Your task to perform on an android device: Search for 24"x36" picture frame on Home Depot. Image 0: 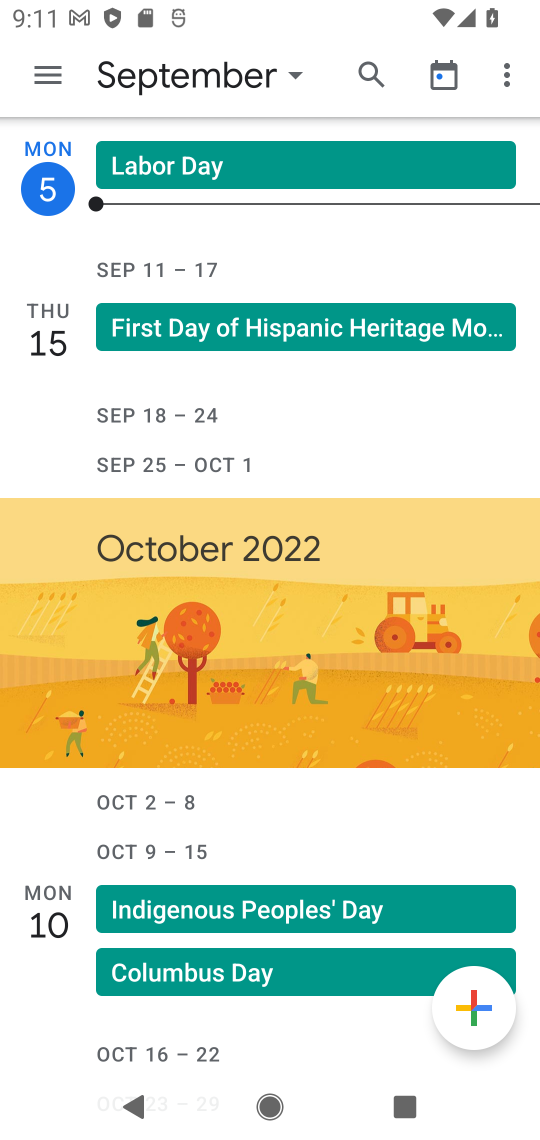
Step 0: click (192, 1022)
Your task to perform on an android device: Search for 24"x36" picture frame on Home Depot. Image 1: 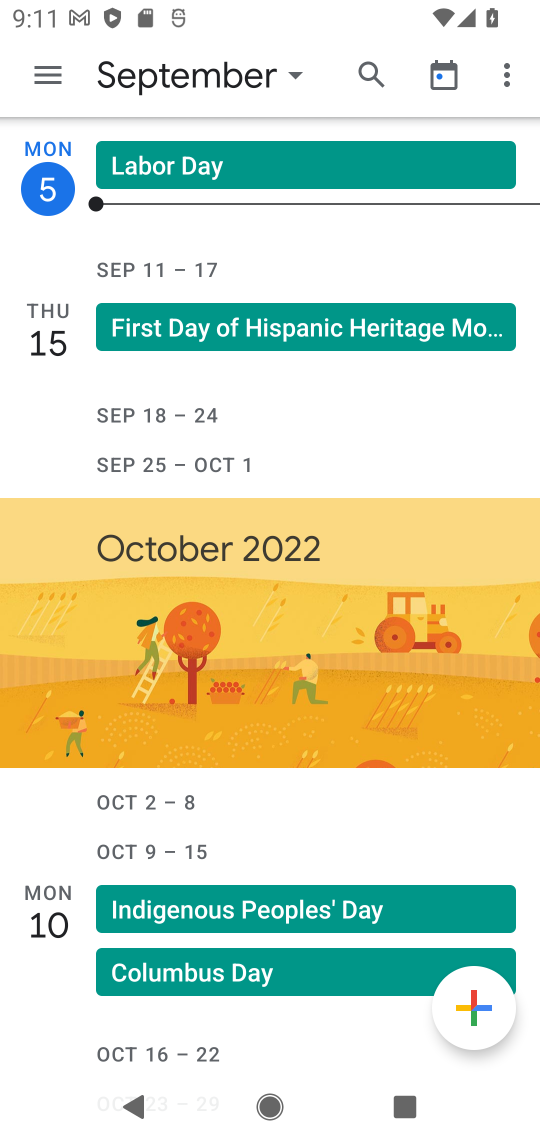
Step 1: press home button
Your task to perform on an android device: Search for 24"x36" picture frame on Home Depot. Image 2: 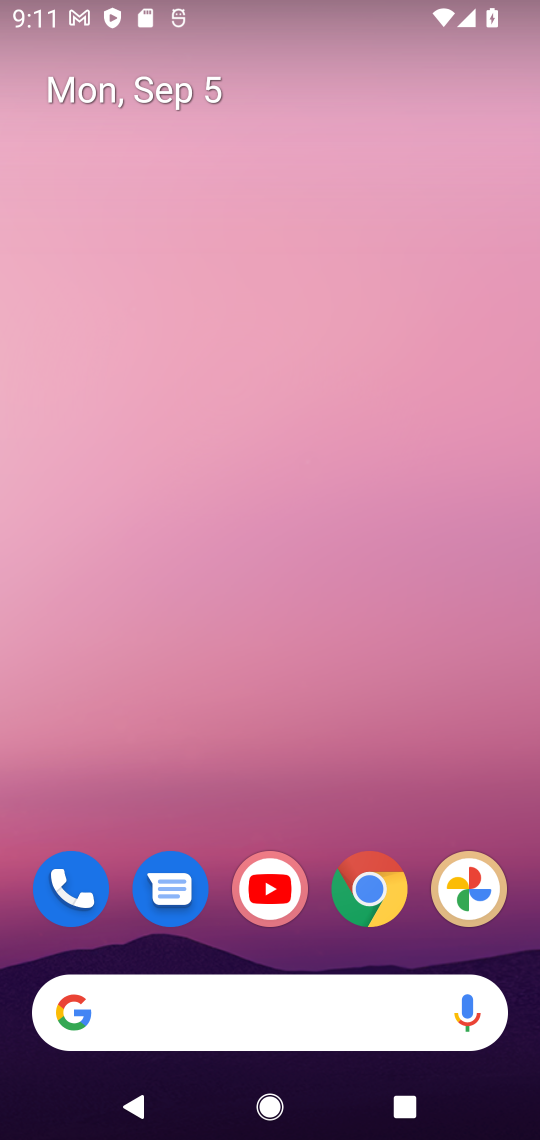
Step 2: click (229, 1019)
Your task to perform on an android device: Search for 24"x36" picture frame on Home Depot. Image 3: 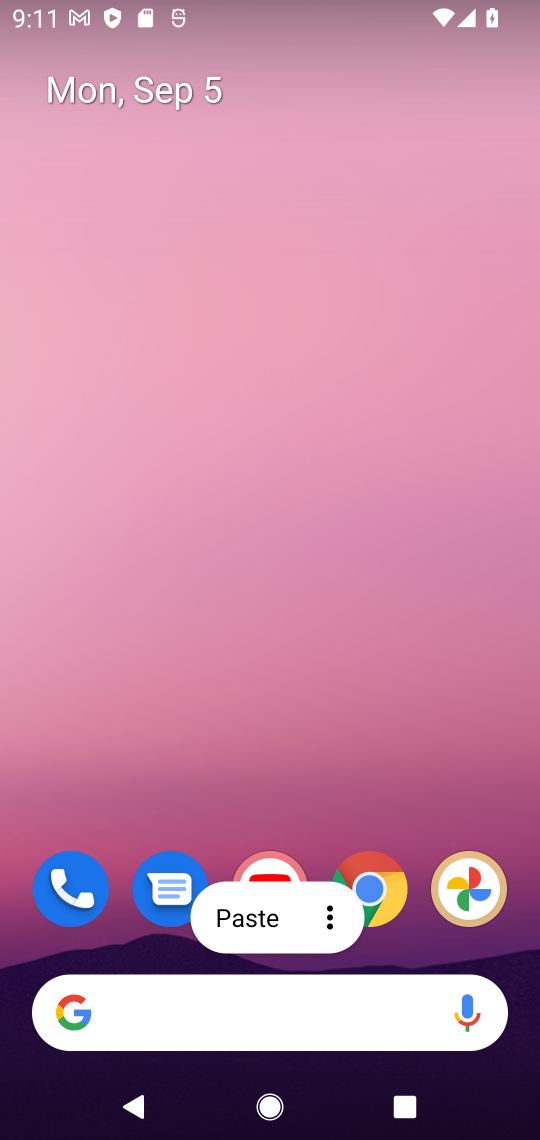
Step 3: click (242, 1022)
Your task to perform on an android device: Search for 24"x36" picture frame on Home Depot. Image 4: 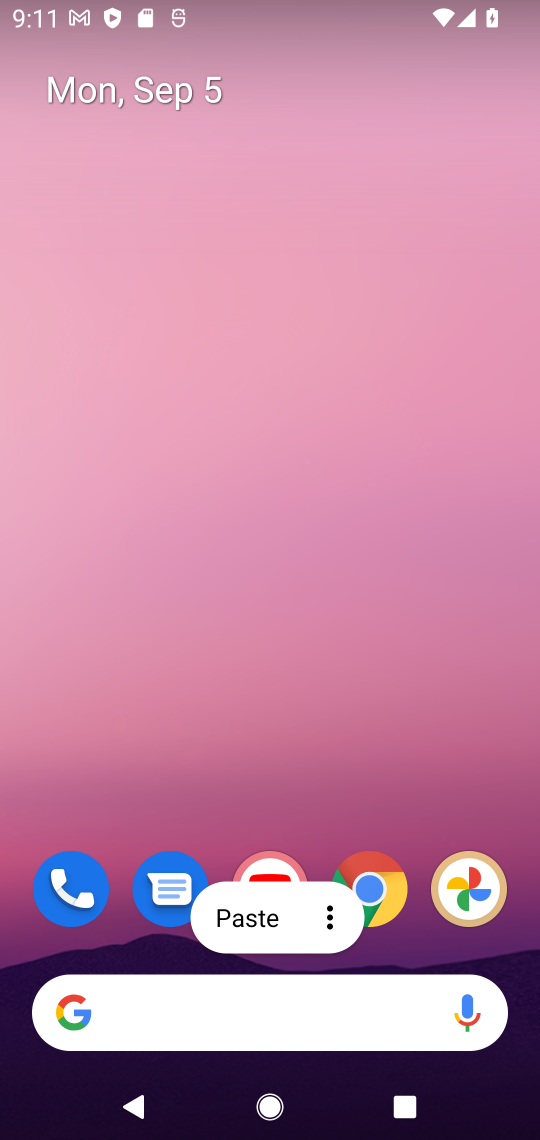
Step 4: click (269, 1026)
Your task to perform on an android device: Search for 24"x36" picture frame on Home Depot. Image 5: 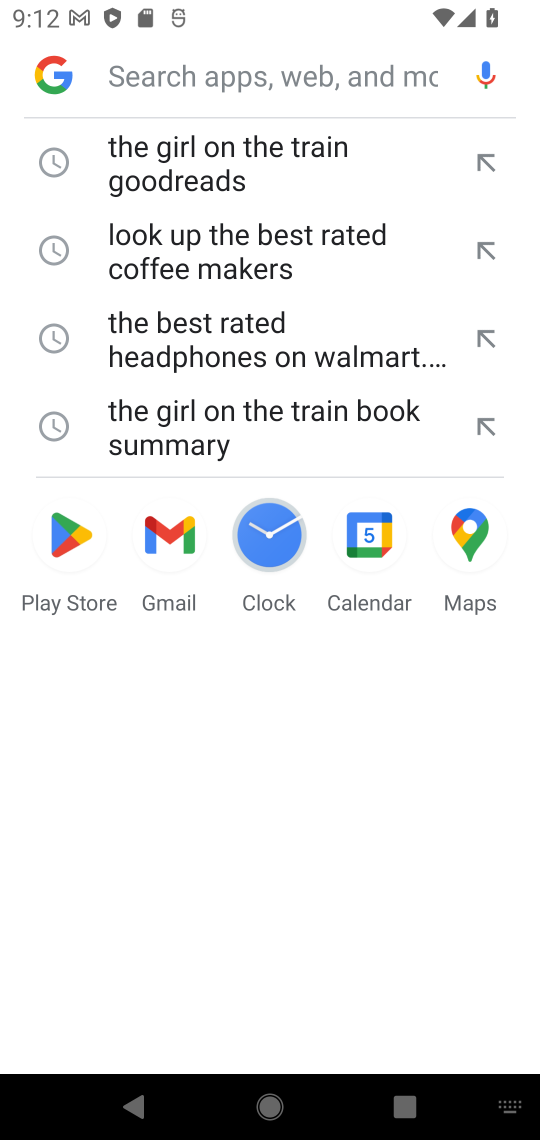
Step 5: type "24"*36" "
Your task to perform on an android device: Search for 24"x36" picture frame on Home Depot. Image 6: 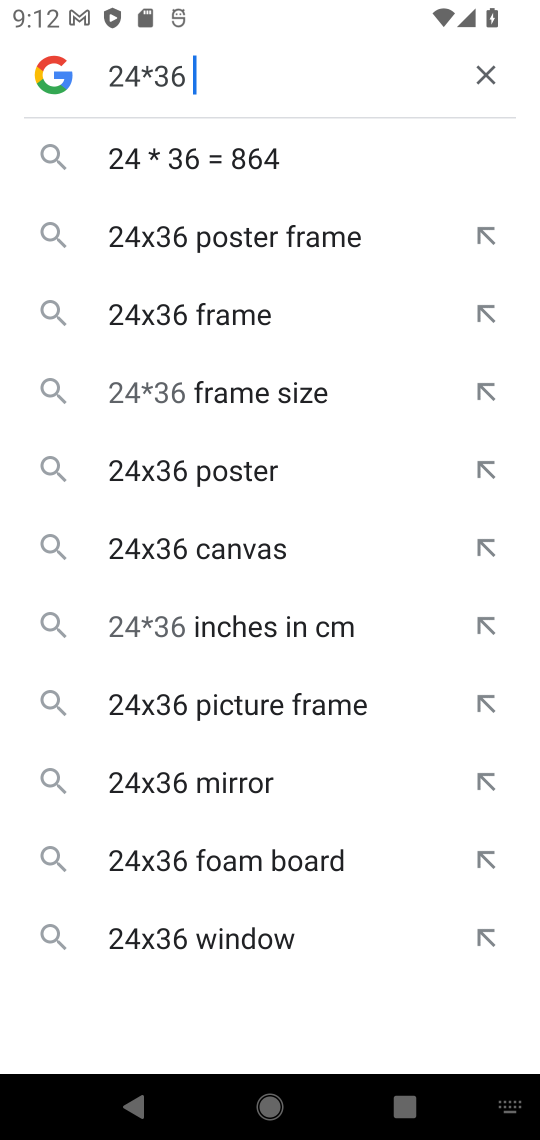
Step 6: type " picture frame on Home Depot"
Your task to perform on an android device: Search for 24"x36" picture frame on Home Depot. Image 7: 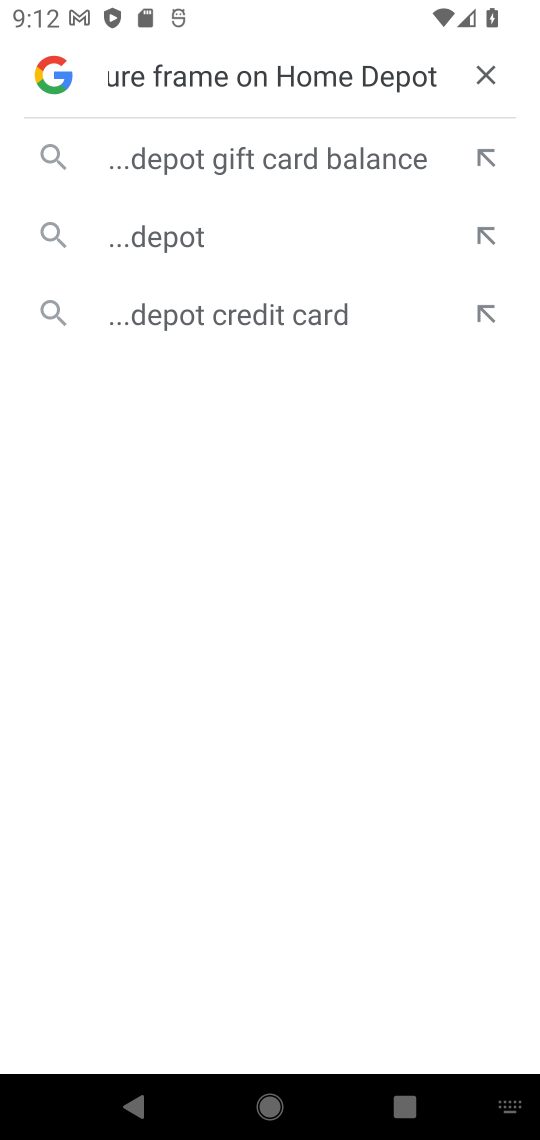
Step 7: click (356, 153)
Your task to perform on an android device: Search for 24"x36" picture frame on Home Depot. Image 8: 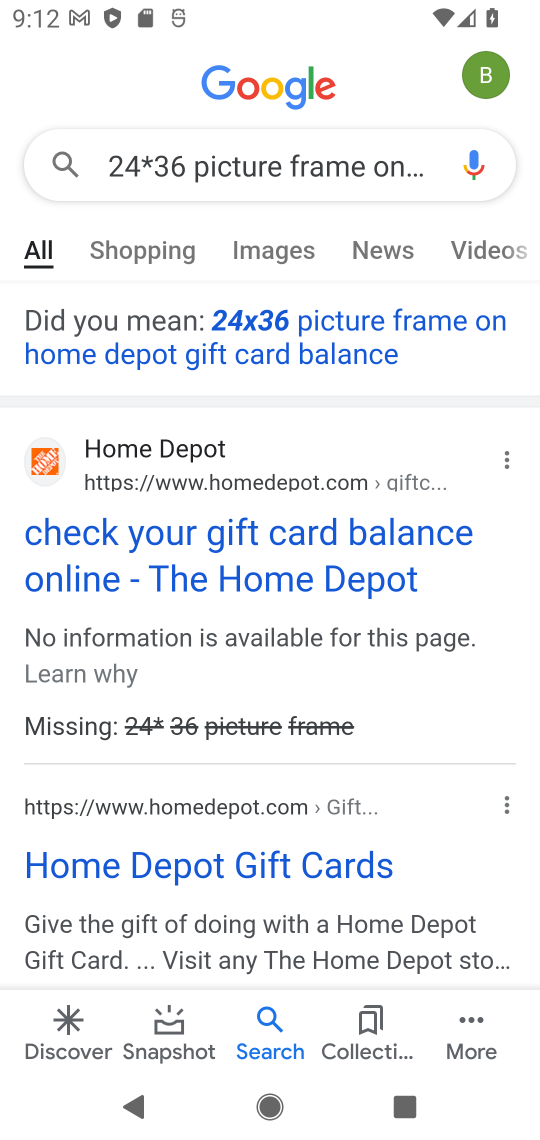
Step 8: drag from (264, 858) to (339, 327)
Your task to perform on an android device: Search for 24"x36" picture frame on Home Depot. Image 9: 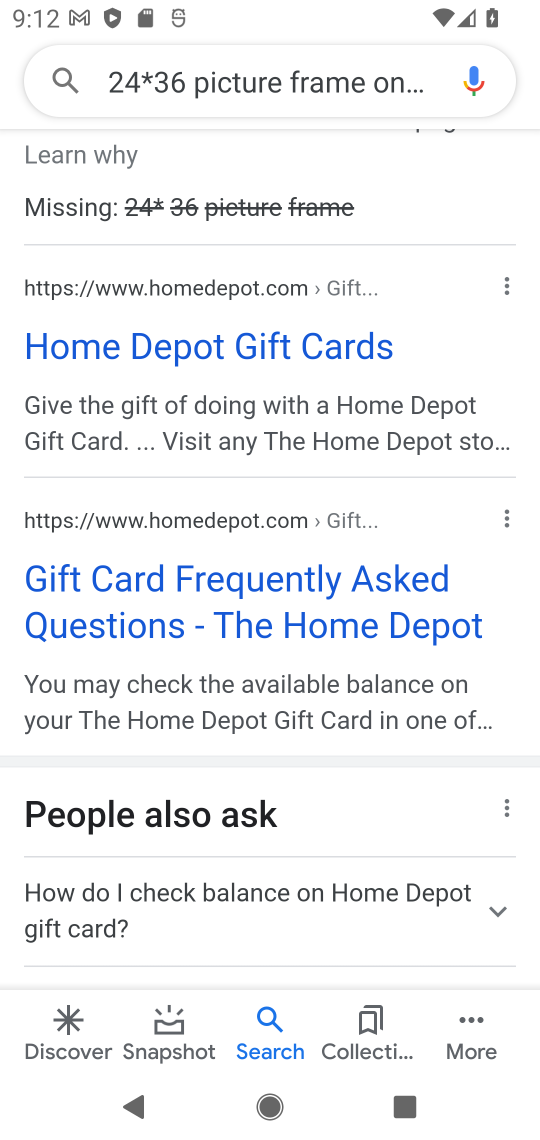
Step 9: click (311, 581)
Your task to perform on an android device: Search for 24"x36" picture frame on Home Depot. Image 10: 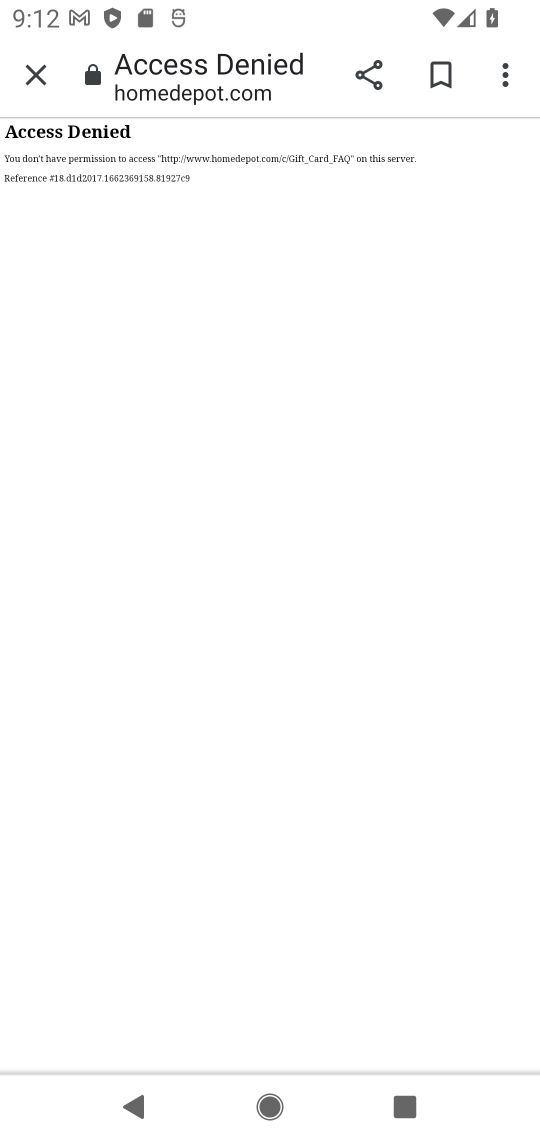
Step 10: click (35, 71)
Your task to perform on an android device: Search for 24"x36" picture frame on Home Depot. Image 11: 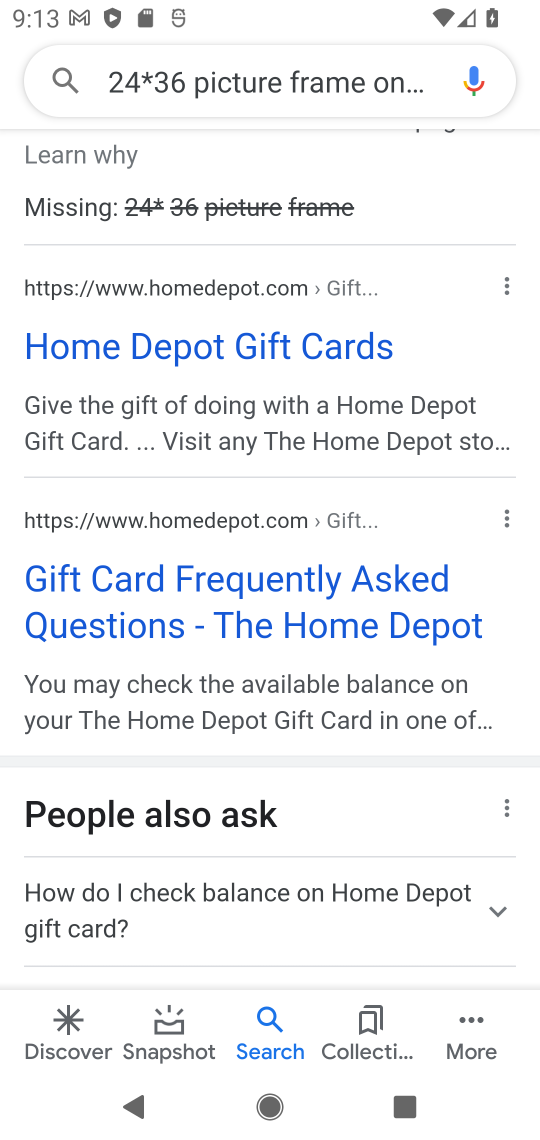
Step 11: click (424, 92)
Your task to perform on an android device: Search for 24"x36" picture frame on Home Depot. Image 12: 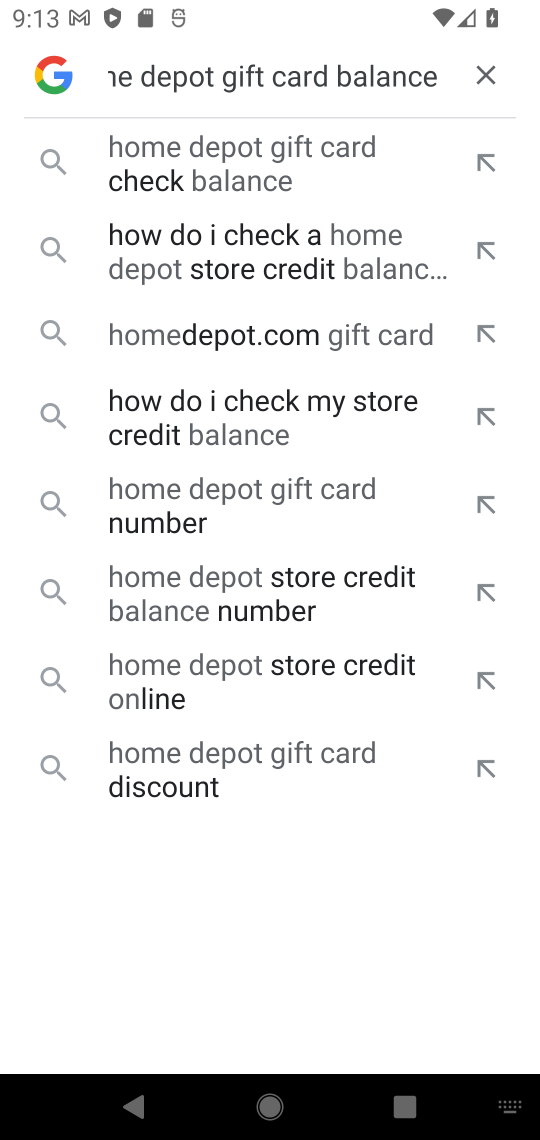
Step 12: click (478, 71)
Your task to perform on an android device: Search for 24"x36" picture frame on Home Depot. Image 13: 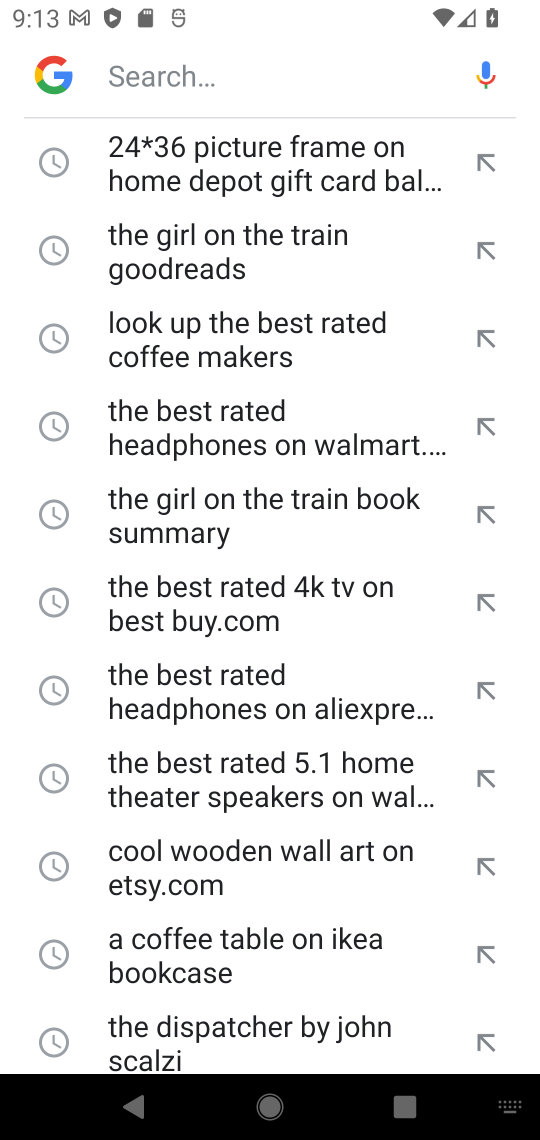
Step 13: type " picture frame on Home Depot."
Your task to perform on an android device: Search for 24"x36" picture frame on Home Depot. Image 14: 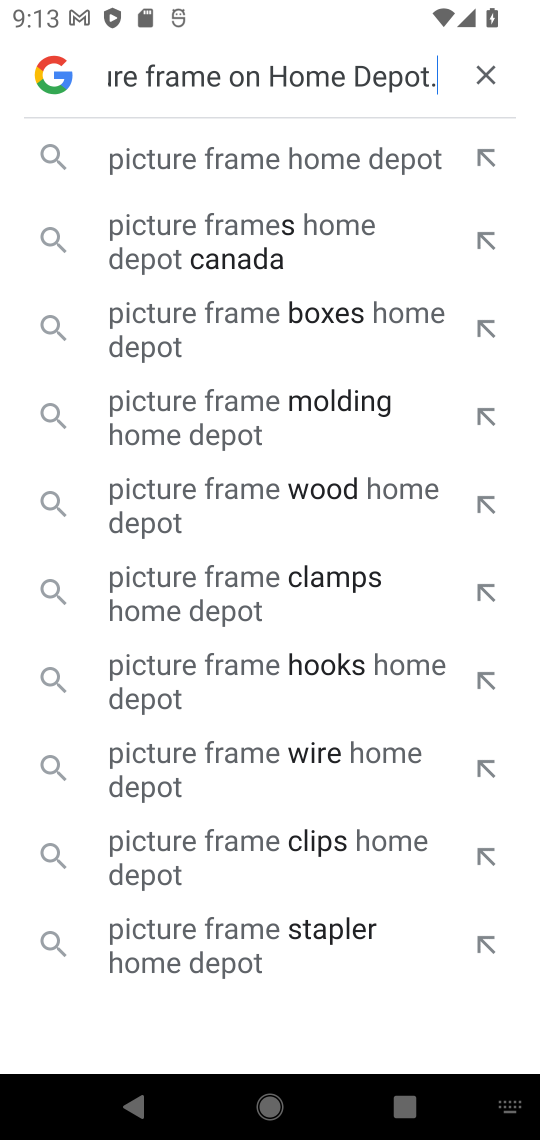
Step 14: click (204, 163)
Your task to perform on an android device: Search for 24"x36" picture frame on Home Depot. Image 15: 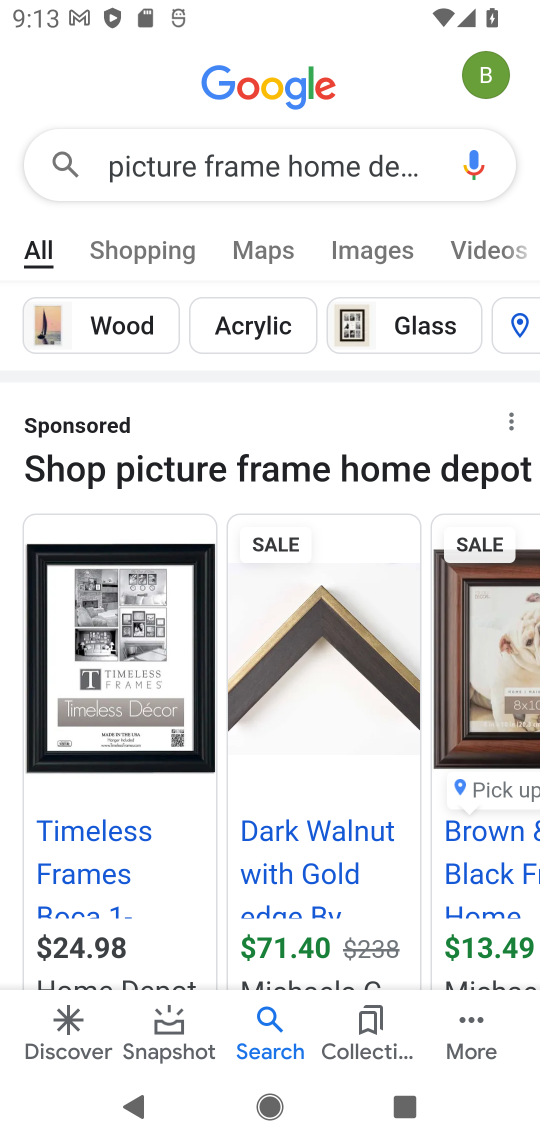
Step 15: click (265, 234)
Your task to perform on an android device: Search for 24"x36" picture frame on Home Depot. Image 16: 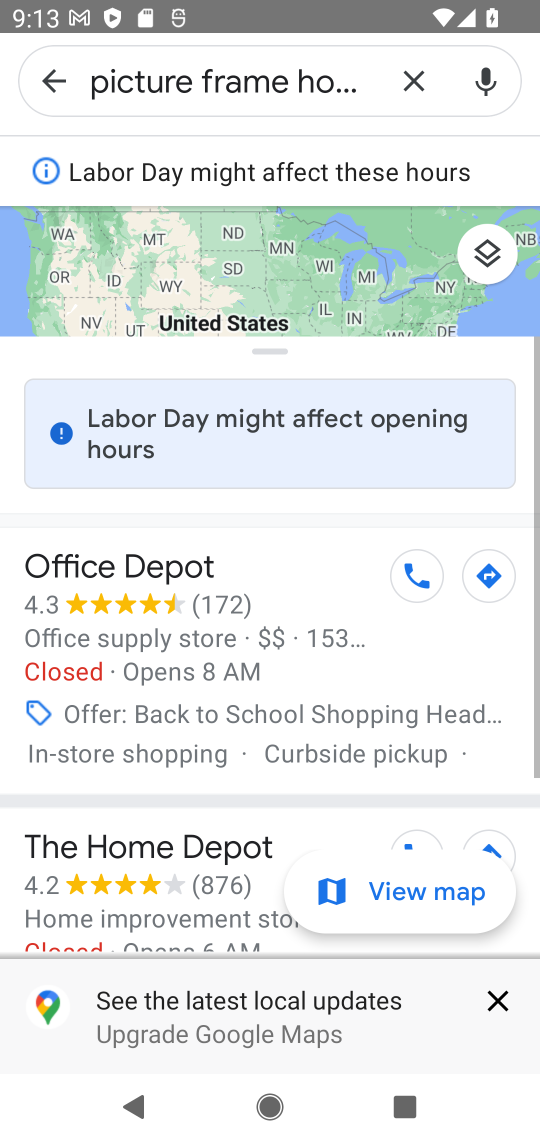
Step 16: press back button
Your task to perform on an android device: Search for 24"x36" picture frame on Home Depot. Image 17: 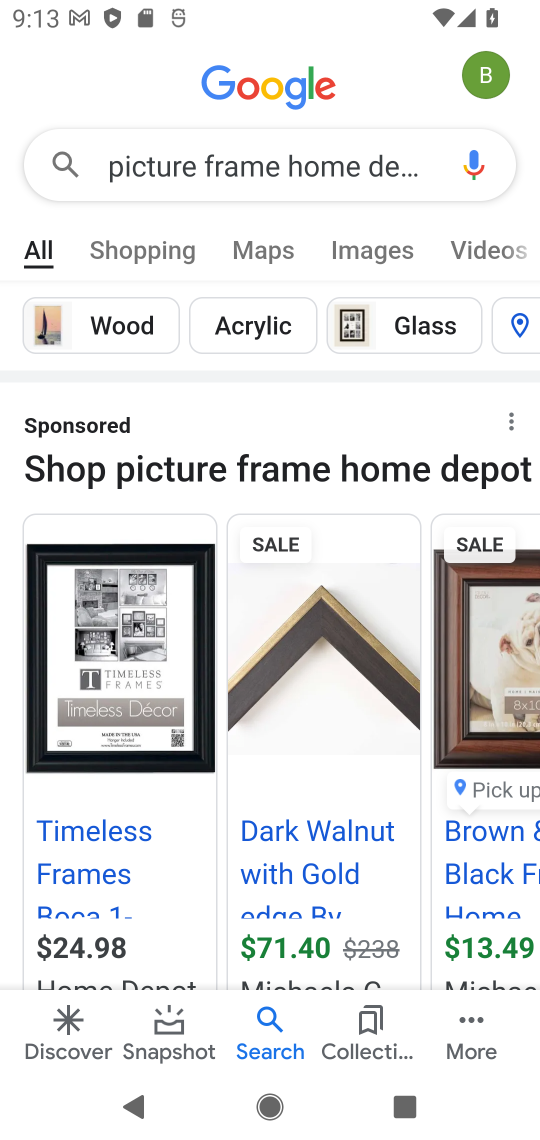
Step 17: drag from (206, 757) to (242, 492)
Your task to perform on an android device: Search for 24"x36" picture frame on Home Depot. Image 18: 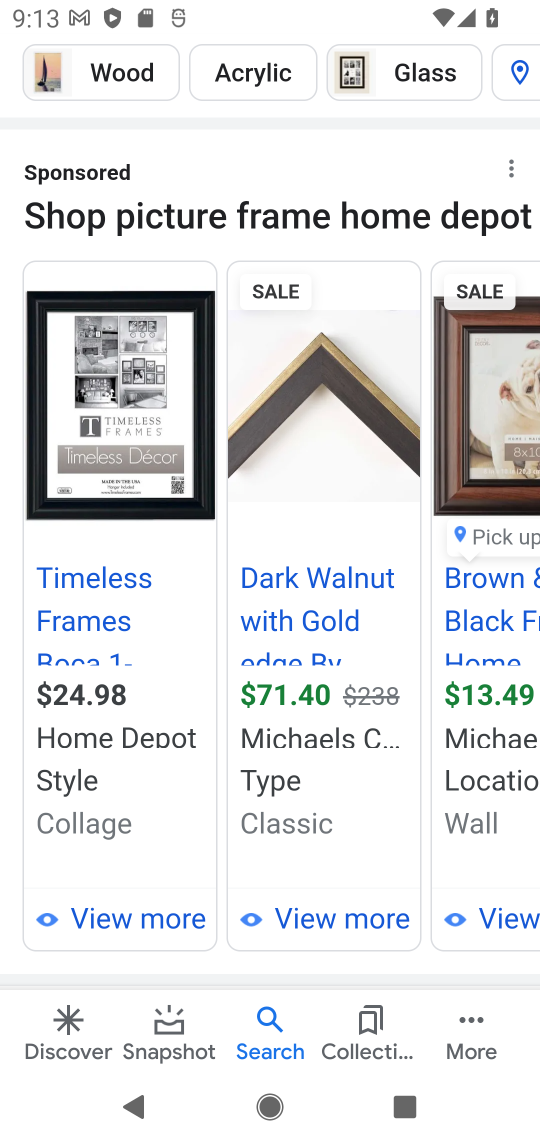
Step 18: drag from (223, 919) to (266, 515)
Your task to perform on an android device: Search for 24"x36" picture frame on Home Depot. Image 19: 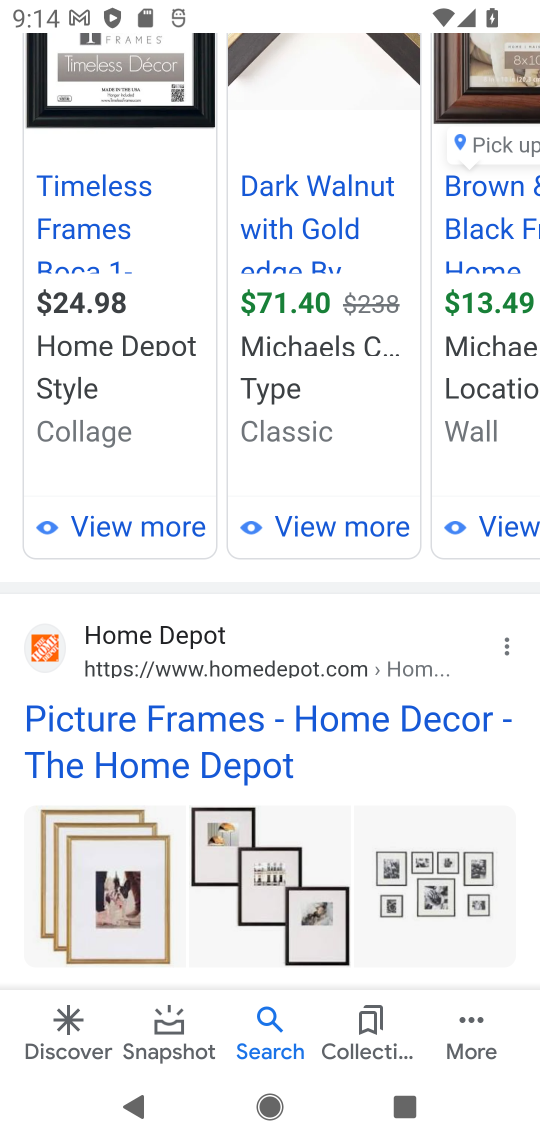
Step 19: drag from (368, 802) to (387, 401)
Your task to perform on an android device: Search for 24"x36" picture frame on Home Depot. Image 20: 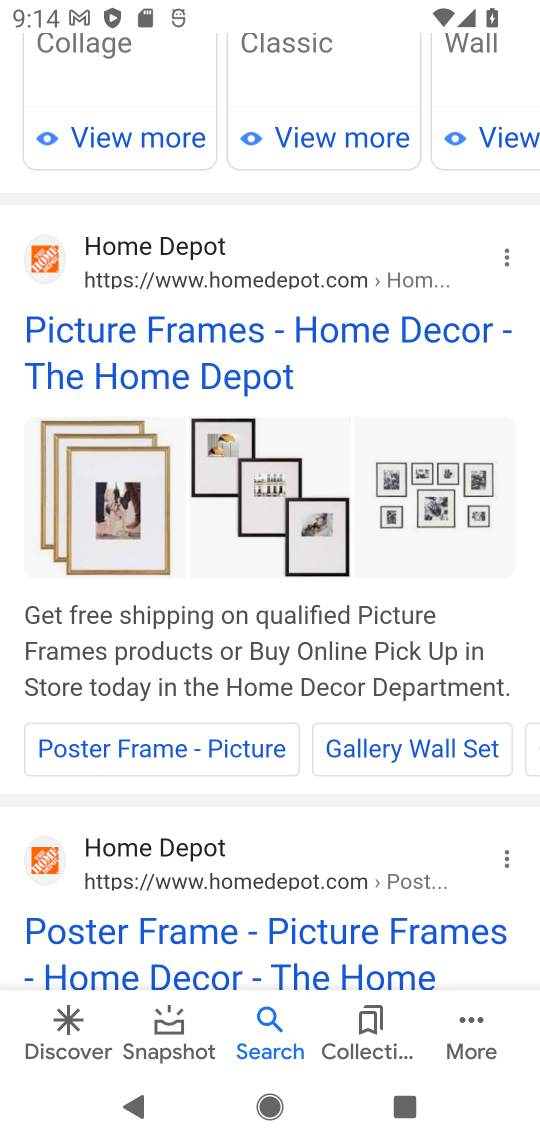
Step 20: click (223, 340)
Your task to perform on an android device: Search for 24"x36" picture frame on Home Depot. Image 21: 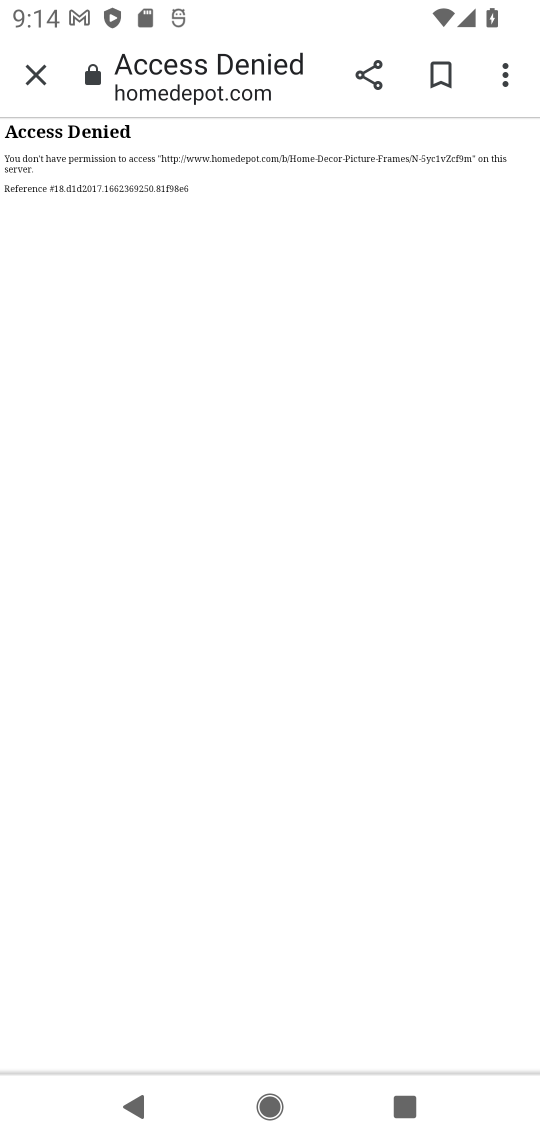
Step 21: task complete